Your task to perform on an android device: turn on the 12-hour format for clock Image 0: 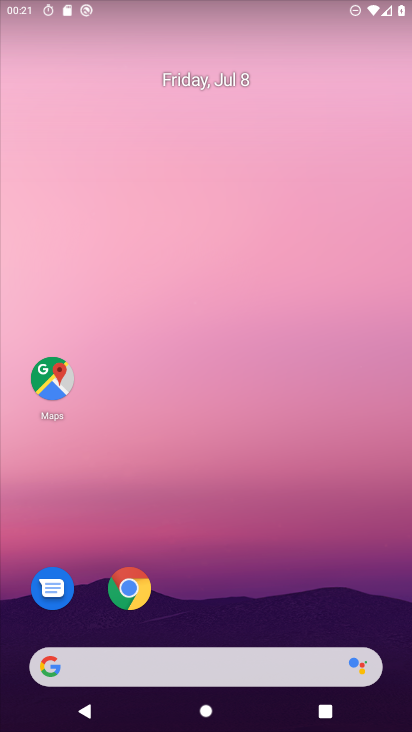
Step 0: drag from (297, 621) to (305, 115)
Your task to perform on an android device: turn on the 12-hour format for clock Image 1: 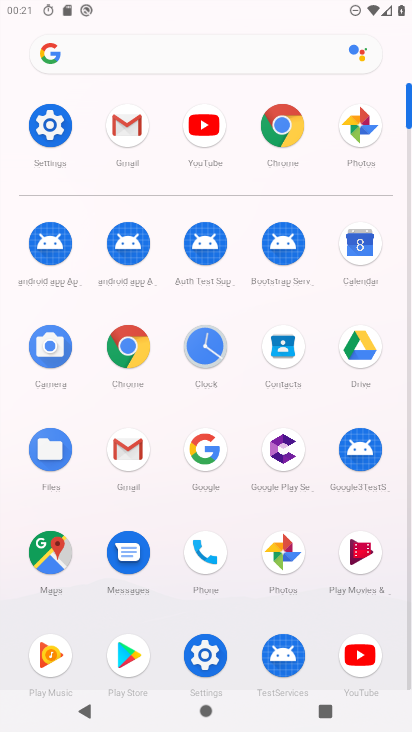
Step 1: click (208, 350)
Your task to perform on an android device: turn on the 12-hour format for clock Image 2: 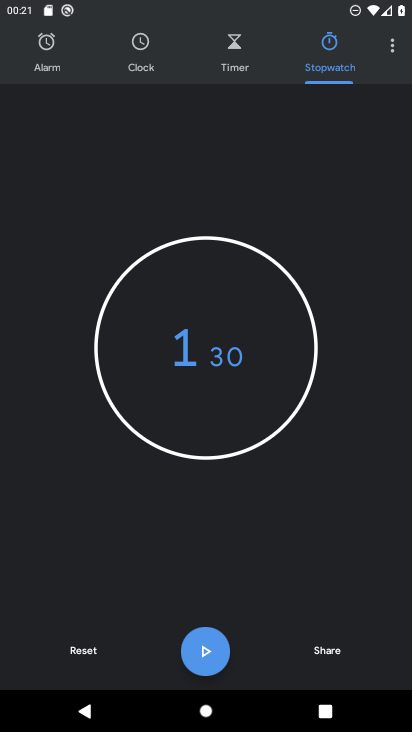
Step 2: click (394, 46)
Your task to perform on an android device: turn on the 12-hour format for clock Image 3: 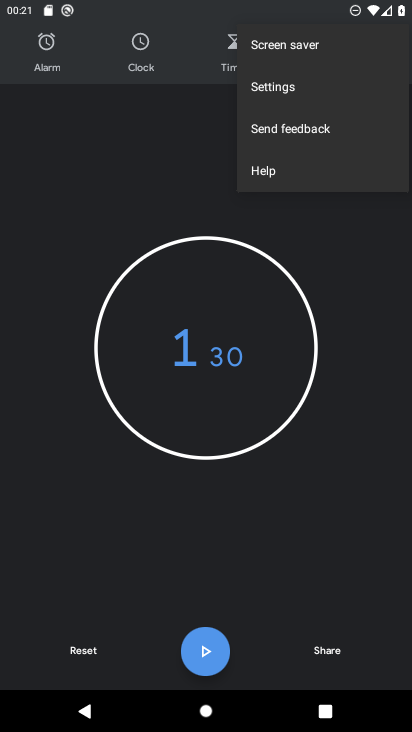
Step 3: click (285, 93)
Your task to perform on an android device: turn on the 12-hour format for clock Image 4: 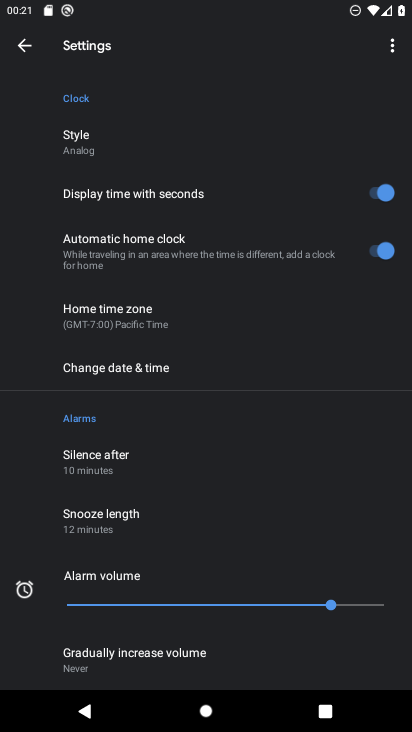
Step 4: click (156, 372)
Your task to perform on an android device: turn on the 12-hour format for clock Image 5: 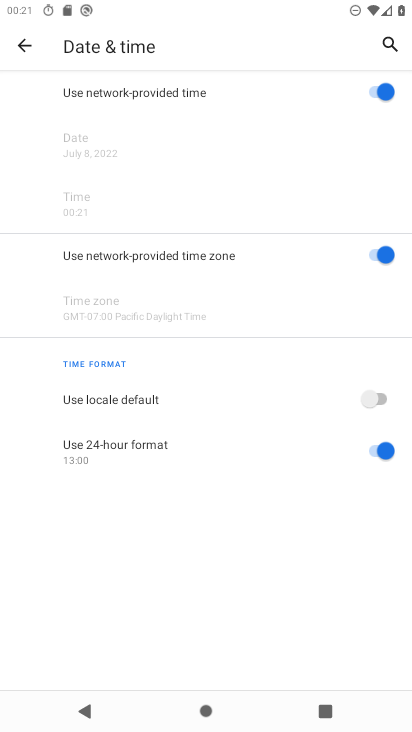
Step 5: click (371, 393)
Your task to perform on an android device: turn on the 12-hour format for clock Image 6: 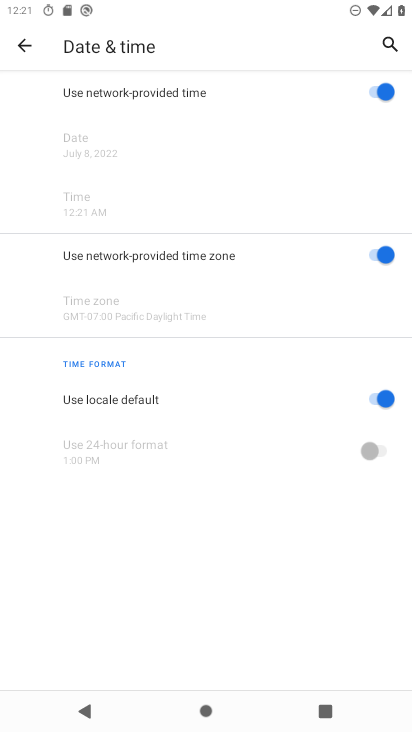
Step 6: task complete